Your task to perform on an android device: turn vacation reply on in the gmail app Image 0: 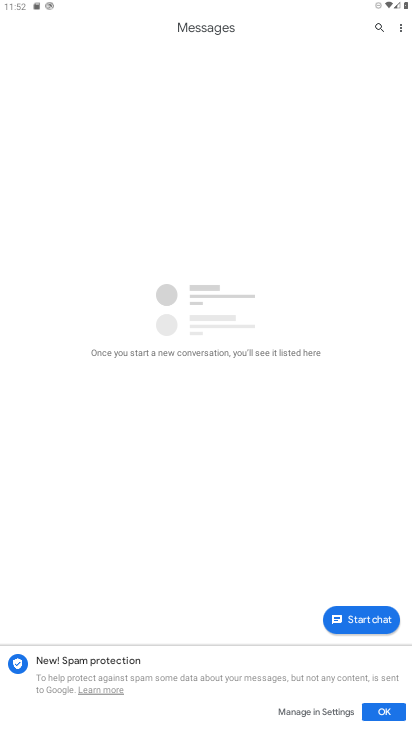
Step 0: press home button
Your task to perform on an android device: turn vacation reply on in the gmail app Image 1: 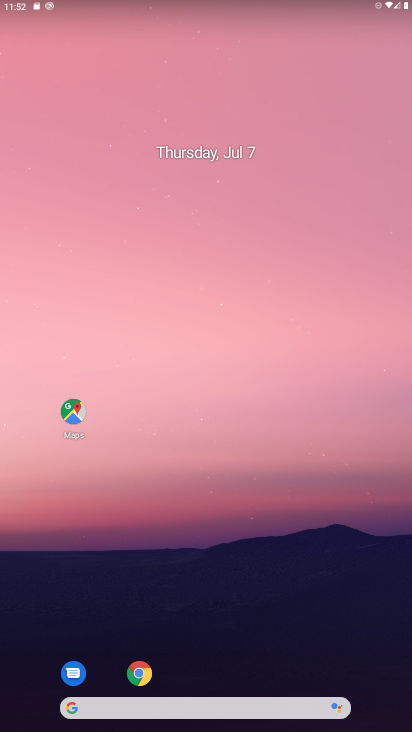
Step 1: drag from (384, 718) to (275, 29)
Your task to perform on an android device: turn vacation reply on in the gmail app Image 2: 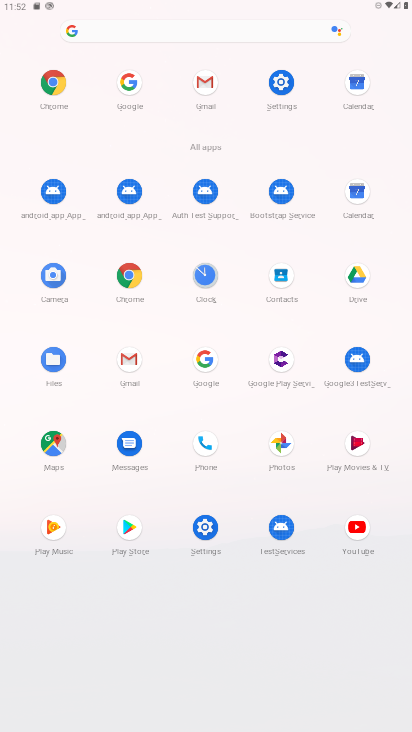
Step 2: click (129, 359)
Your task to perform on an android device: turn vacation reply on in the gmail app Image 3: 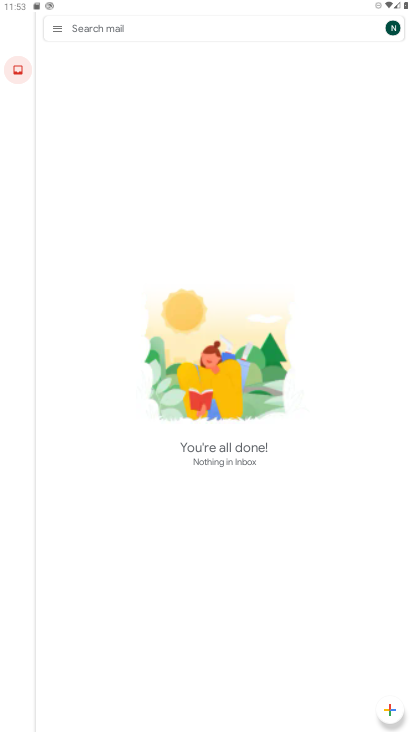
Step 3: click (80, 20)
Your task to perform on an android device: turn vacation reply on in the gmail app Image 4: 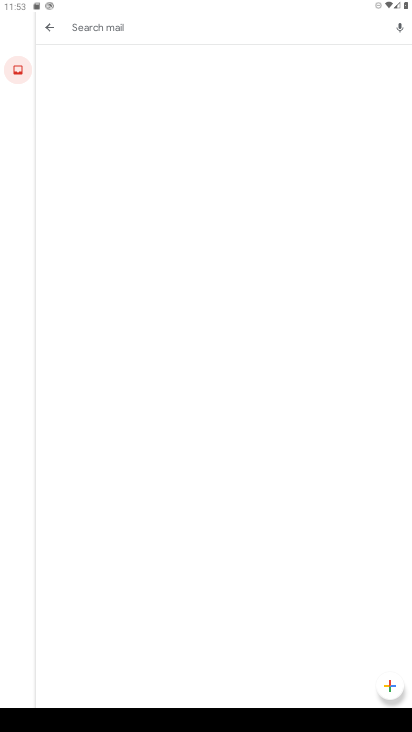
Step 4: click (46, 26)
Your task to perform on an android device: turn vacation reply on in the gmail app Image 5: 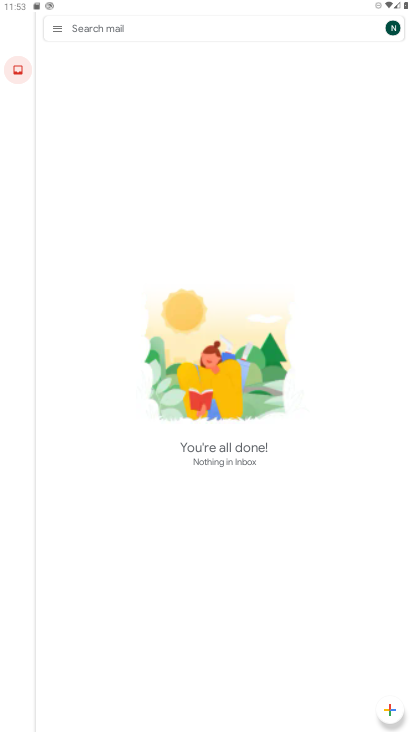
Step 5: click (54, 26)
Your task to perform on an android device: turn vacation reply on in the gmail app Image 6: 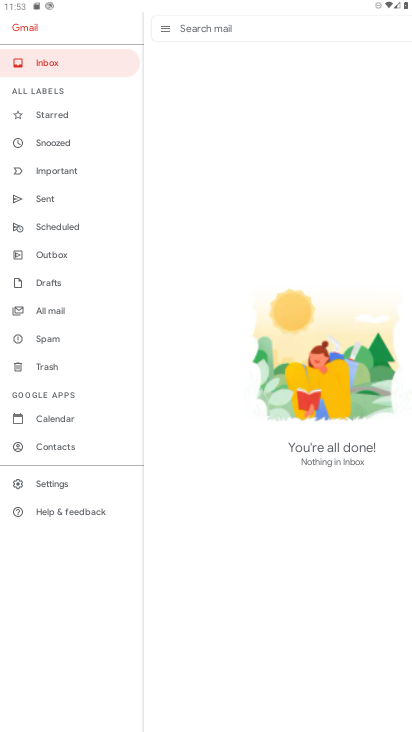
Step 6: click (58, 478)
Your task to perform on an android device: turn vacation reply on in the gmail app Image 7: 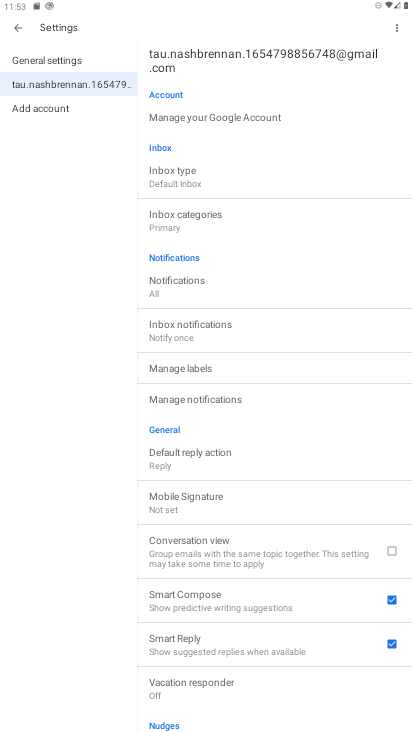
Step 7: click (208, 679)
Your task to perform on an android device: turn vacation reply on in the gmail app Image 8: 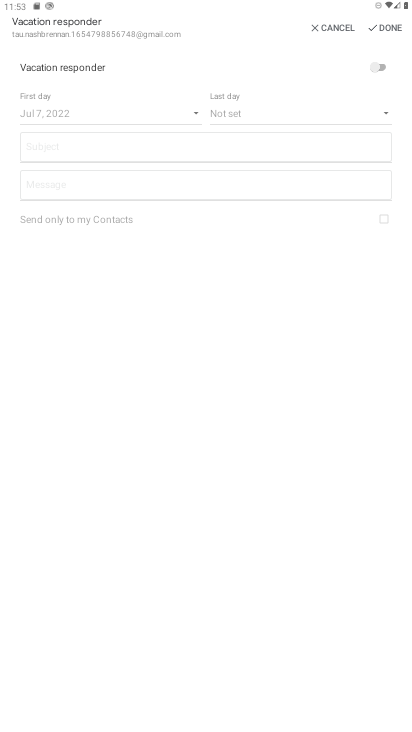
Step 8: click (380, 64)
Your task to perform on an android device: turn vacation reply on in the gmail app Image 9: 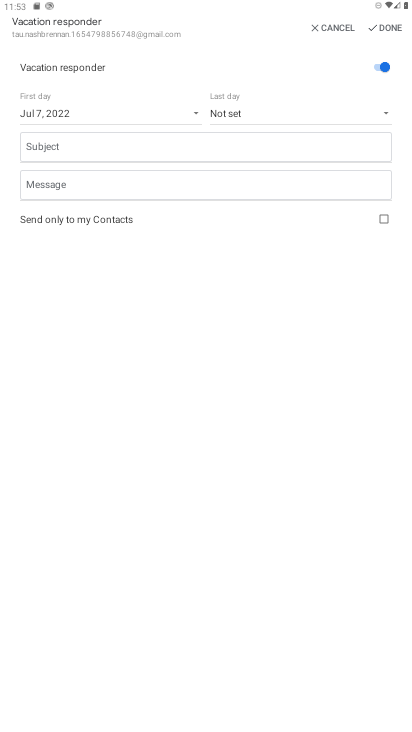
Step 9: task complete